Your task to perform on an android device: turn off location history Image 0: 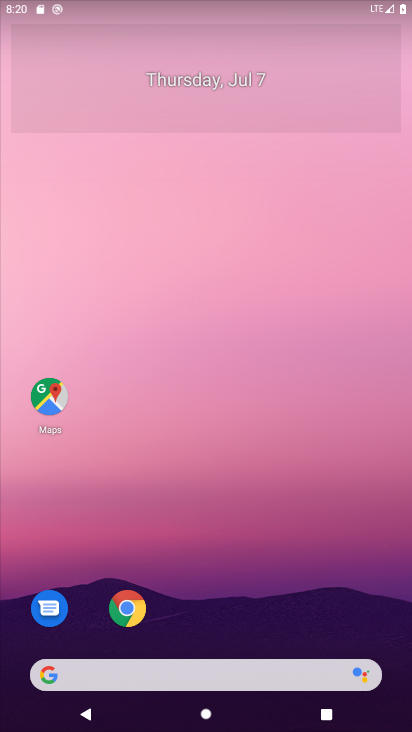
Step 0: drag from (373, 608) to (387, 69)
Your task to perform on an android device: turn off location history Image 1: 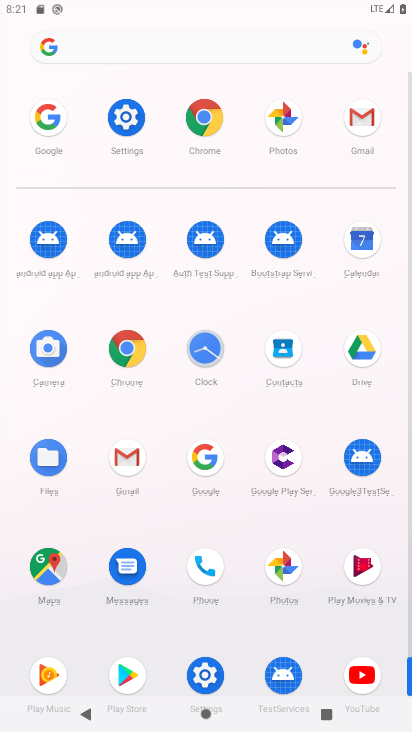
Step 1: click (132, 139)
Your task to perform on an android device: turn off location history Image 2: 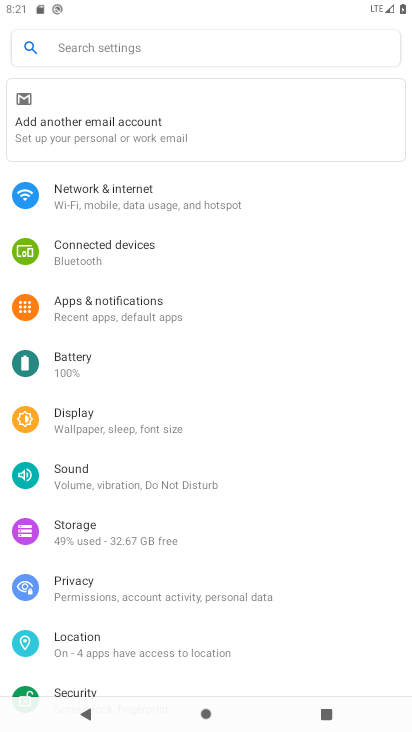
Step 2: drag from (344, 448) to (345, 353)
Your task to perform on an android device: turn off location history Image 3: 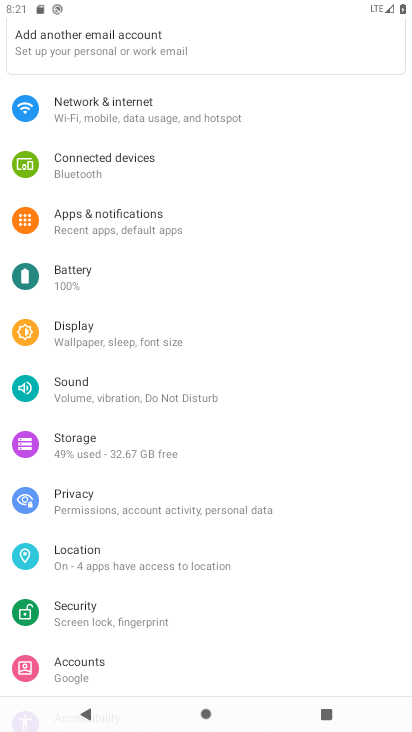
Step 3: drag from (350, 464) to (356, 372)
Your task to perform on an android device: turn off location history Image 4: 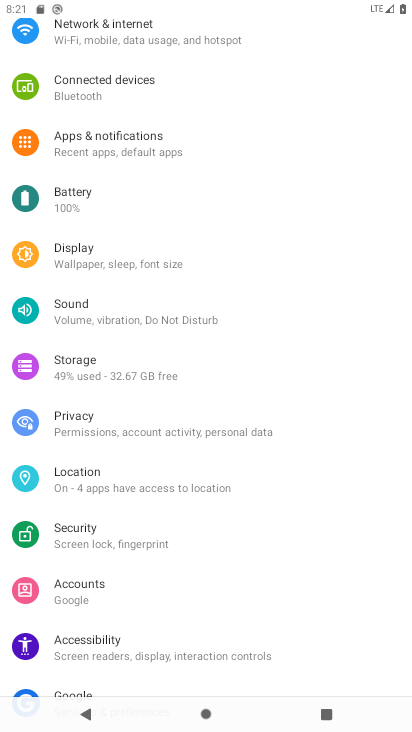
Step 4: drag from (357, 504) to (354, 347)
Your task to perform on an android device: turn off location history Image 5: 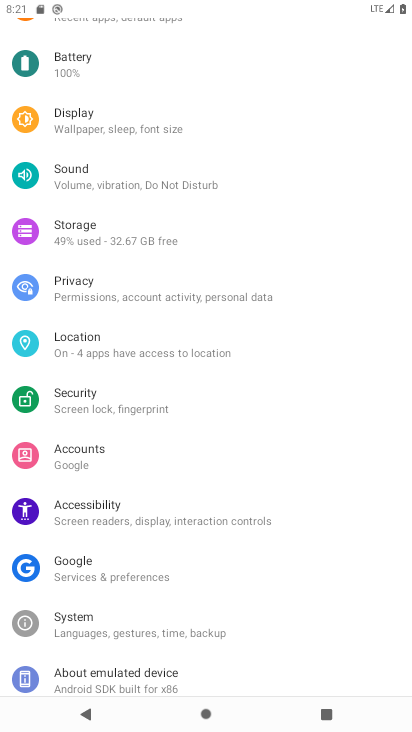
Step 5: drag from (348, 504) to (342, 347)
Your task to perform on an android device: turn off location history Image 6: 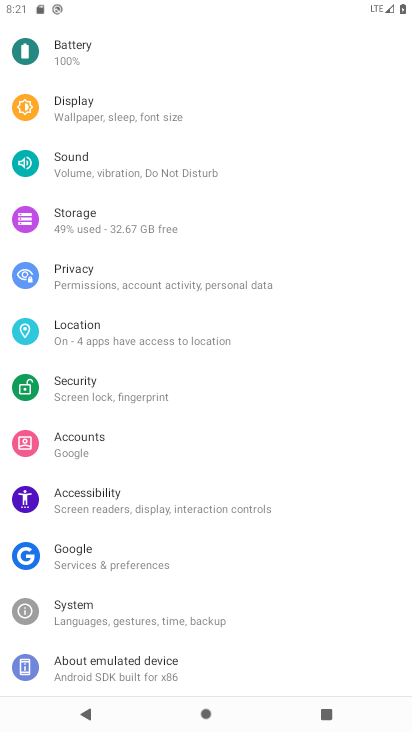
Step 6: click (261, 332)
Your task to perform on an android device: turn off location history Image 7: 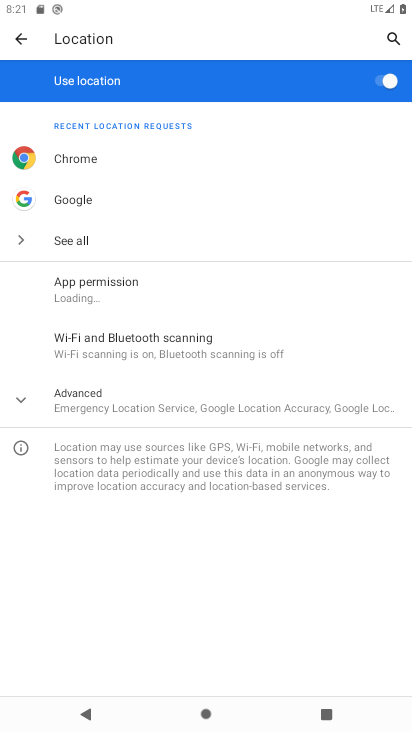
Step 7: click (248, 400)
Your task to perform on an android device: turn off location history Image 8: 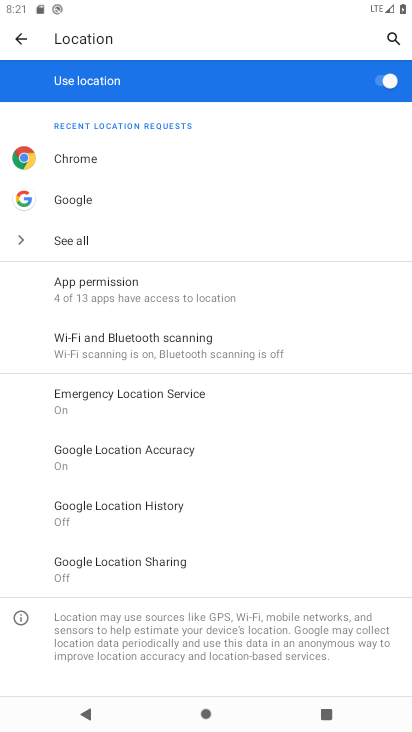
Step 8: click (219, 519)
Your task to perform on an android device: turn off location history Image 9: 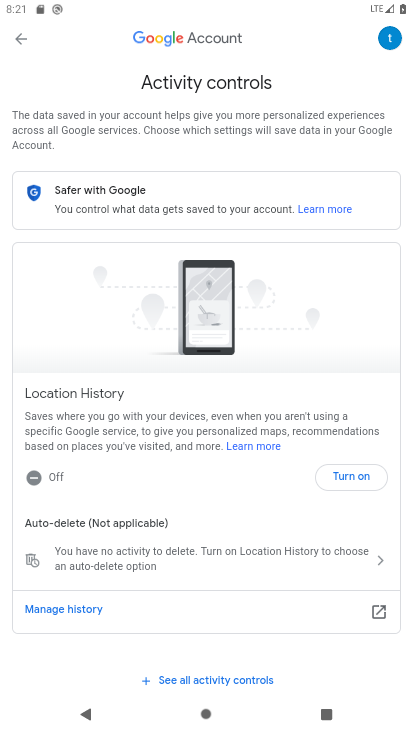
Step 9: task complete